Your task to perform on an android device: Go to display settings Image 0: 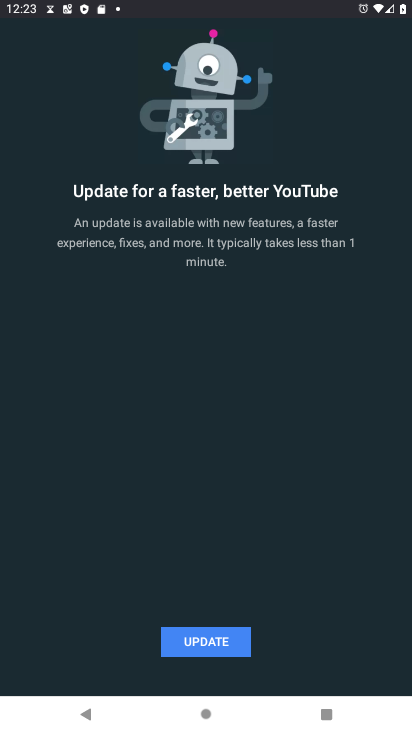
Step 0: press home button
Your task to perform on an android device: Go to display settings Image 1: 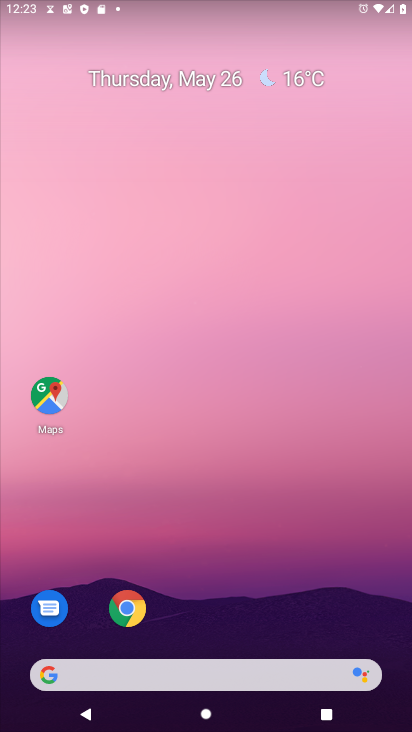
Step 1: drag from (227, 729) to (225, 164)
Your task to perform on an android device: Go to display settings Image 2: 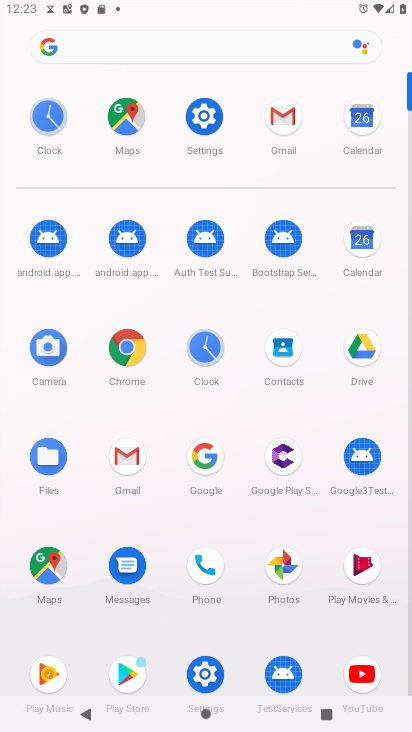
Step 2: click (203, 122)
Your task to perform on an android device: Go to display settings Image 3: 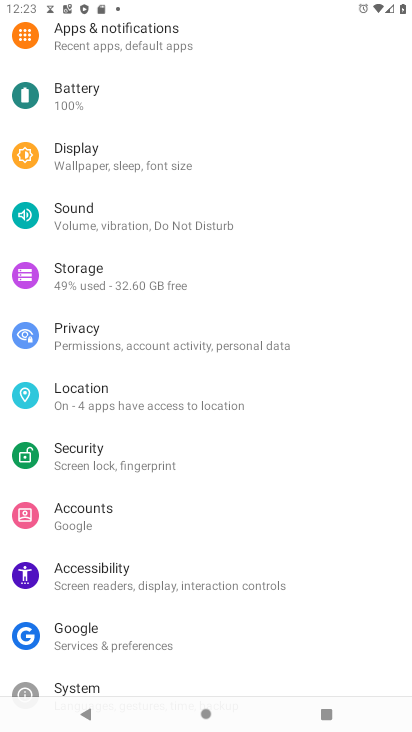
Step 3: drag from (104, 141) to (127, 212)
Your task to perform on an android device: Go to display settings Image 4: 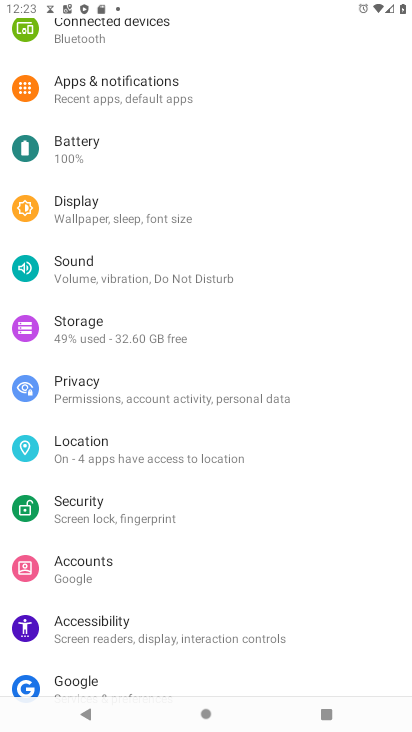
Step 4: drag from (124, 579) to (155, 315)
Your task to perform on an android device: Go to display settings Image 5: 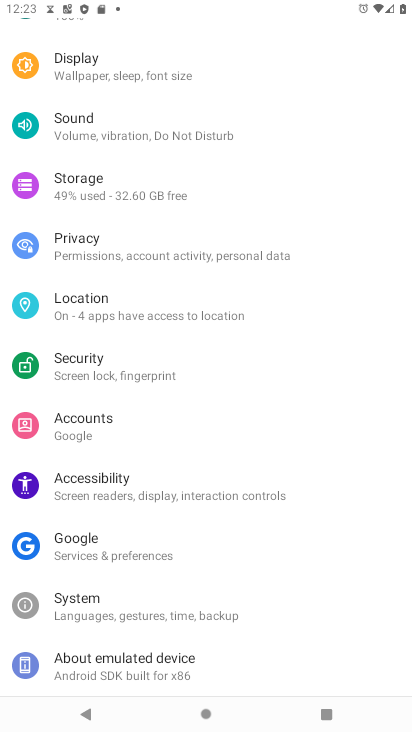
Step 5: click (90, 73)
Your task to perform on an android device: Go to display settings Image 6: 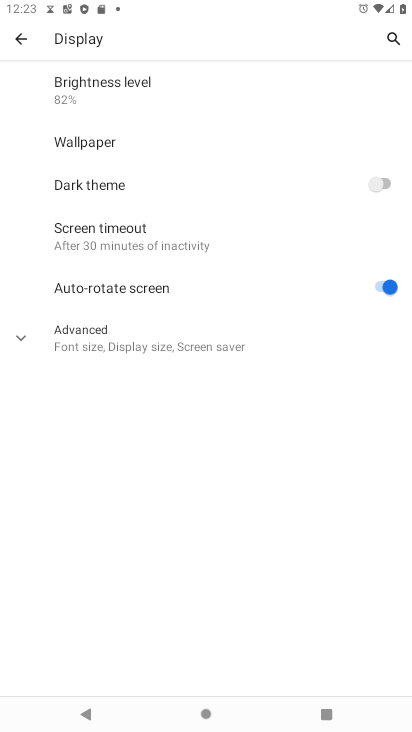
Step 6: task complete